Your task to perform on an android device: Open calendar and show me the third week of next month Image 0: 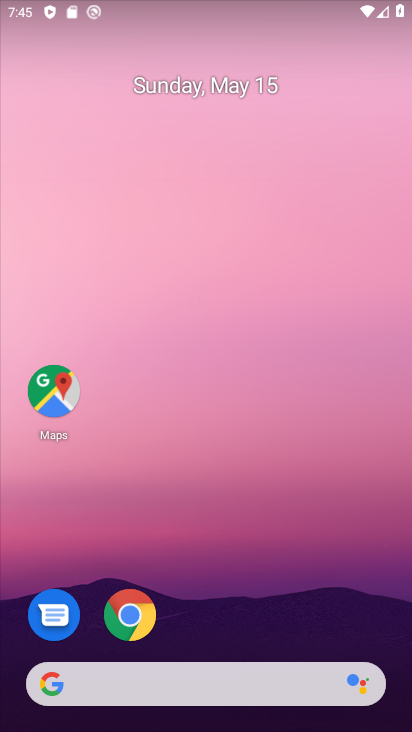
Step 0: drag from (238, 690) to (309, 242)
Your task to perform on an android device: Open calendar and show me the third week of next month Image 1: 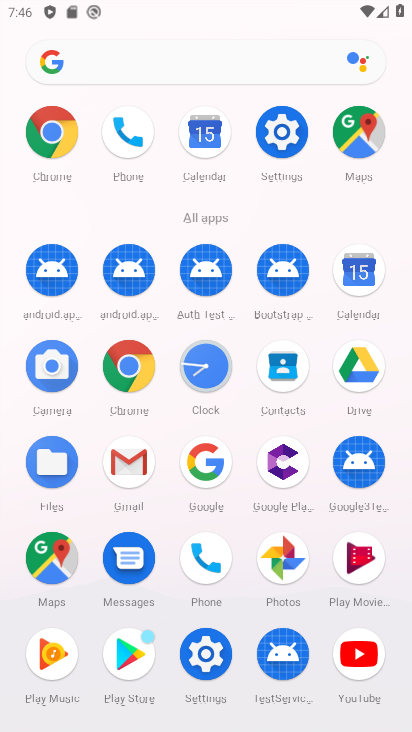
Step 1: click (339, 270)
Your task to perform on an android device: Open calendar and show me the third week of next month Image 2: 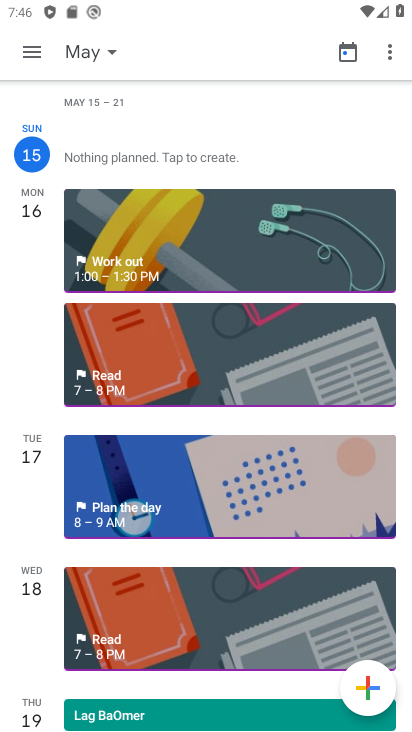
Step 2: click (30, 59)
Your task to perform on an android device: Open calendar and show me the third week of next month Image 3: 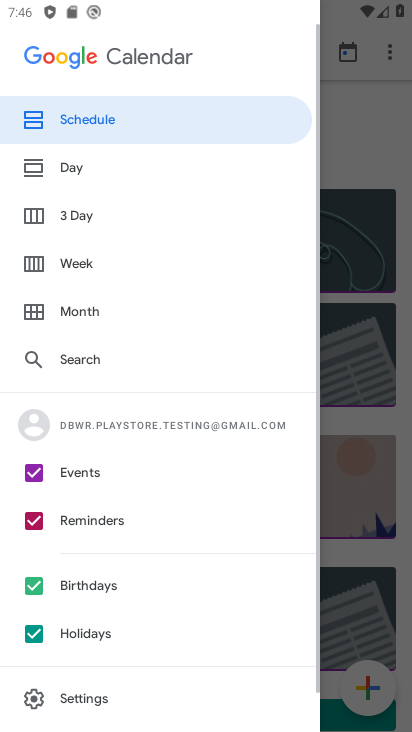
Step 3: click (70, 317)
Your task to perform on an android device: Open calendar and show me the third week of next month Image 4: 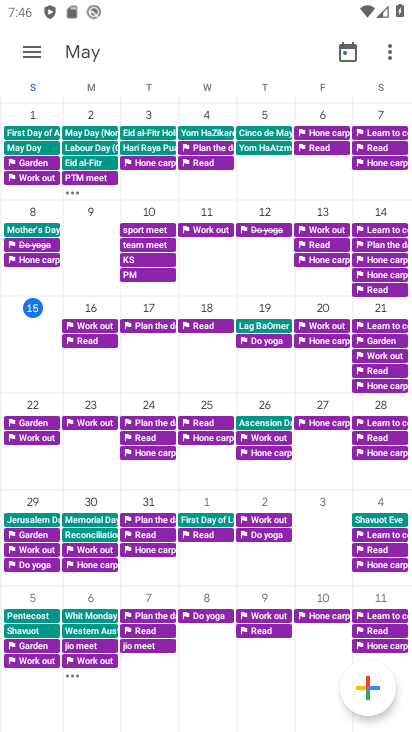
Step 4: drag from (377, 427) to (7, 365)
Your task to perform on an android device: Open calendar and show me the third week of next month Image 5: 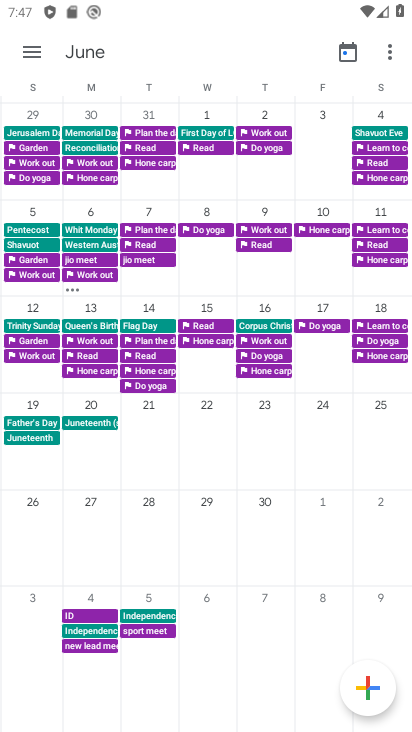
Step 5: click (97, 318)
Your task to perform on an android device: Open calendar and show me the third week of next month Image 6: 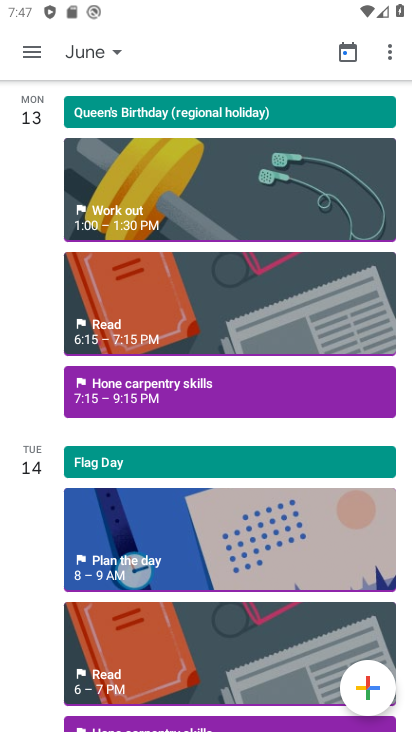
Step 6: task complete